Your task to perform on an android device: turn pop-ups on in chrome Image 0: 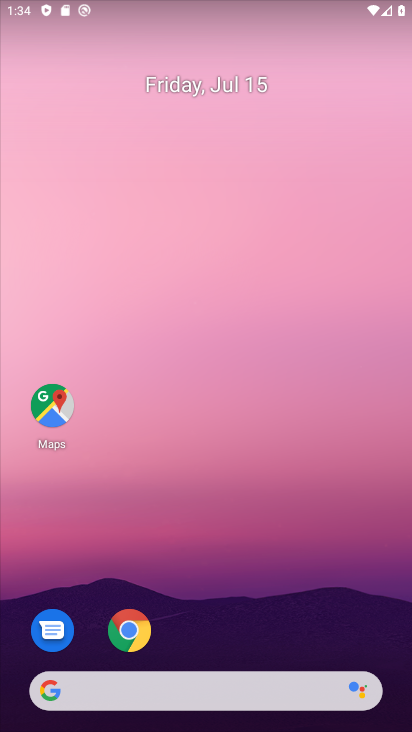
Step 0: click (126, 631)
Your task to perform on an android device: turn pop-ups on in chrome Image 1: 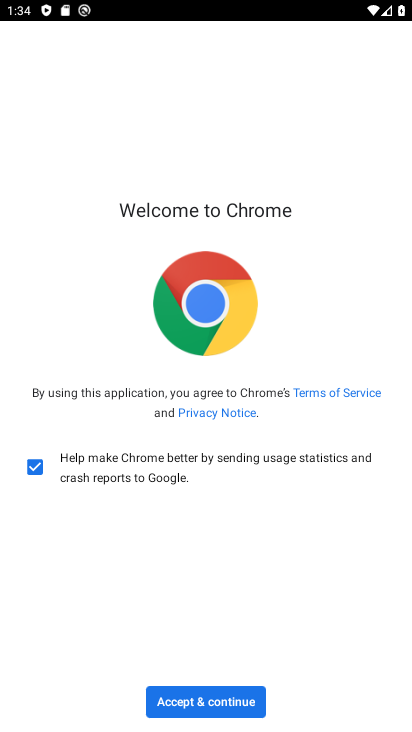
Step 1: click (199, 702)
Your task to perform on an android device: turn pop-ups on in chrome Image 2: 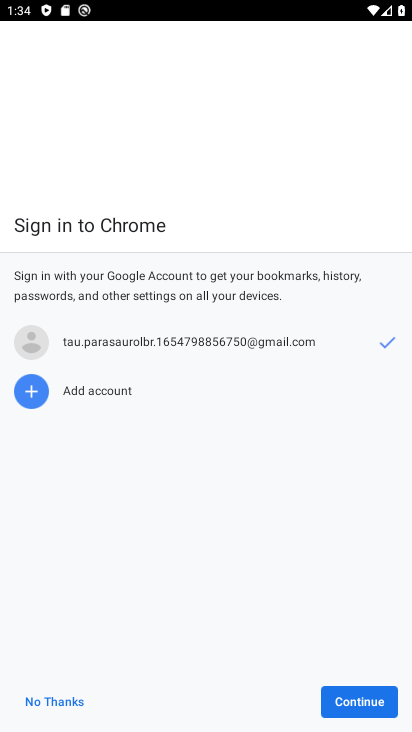
Step 2: click (331, 692)
Your task to perform on an android device: turn pop-ups on in chrome Image 3: 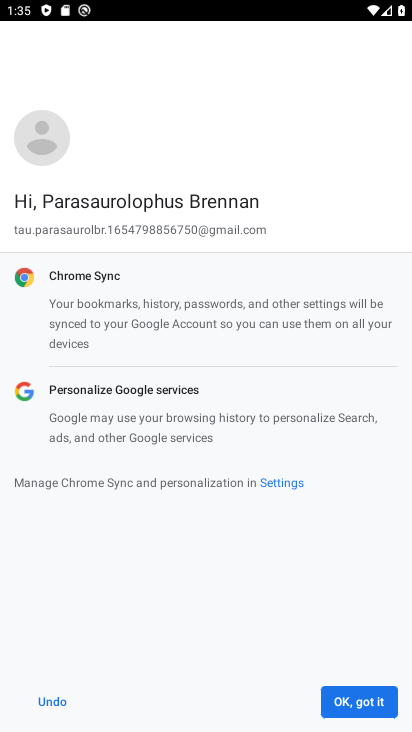
Step 3: click (367, 710)
Your task to perform on an android device: turn pop-ups on in chrome Image 4: 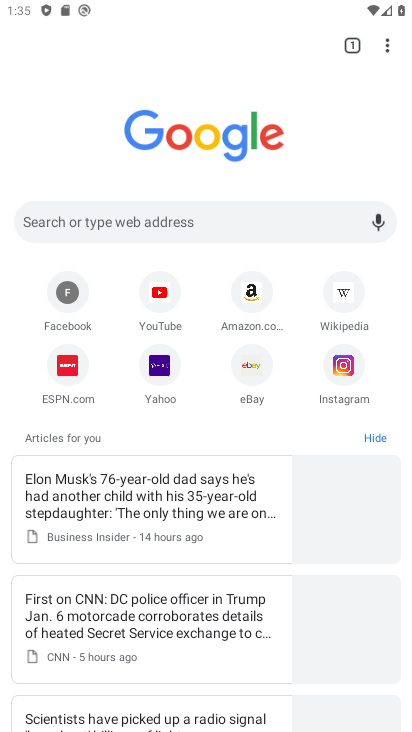
Step 4: click (383, 46)
Your task to perform on an android device: turn pop-ups on in chrome Image 5: 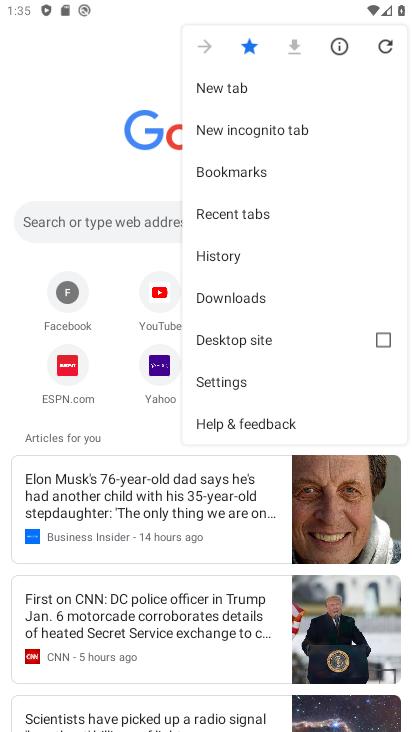
Step 5: click (229, 387)
Your task to perform on an android device: turn pop-ups on in chrome Image 6: 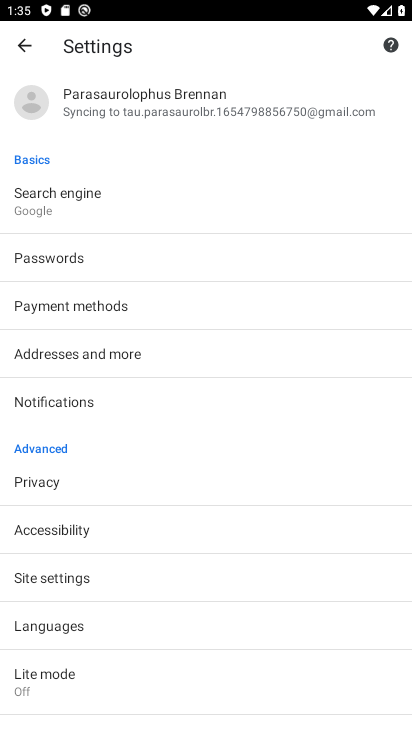
Step 6: click (65, 578)
Your task to perform on an android device: turn pop-ups on in chrome Image 7: 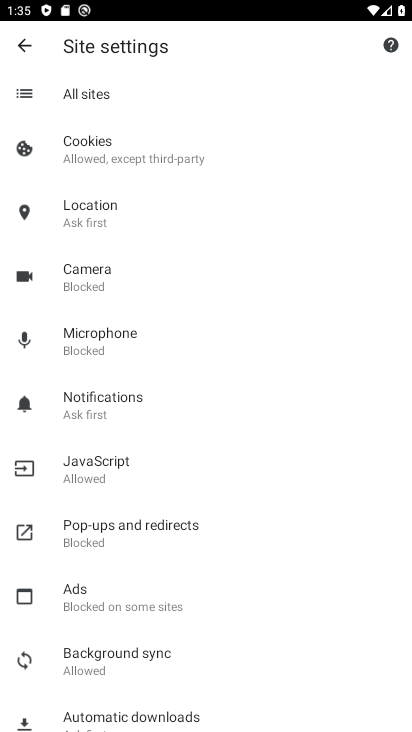
Step 7: click (100, 519)
Your task to perform on an android device: turn pop-ups on in chrome Image 8: 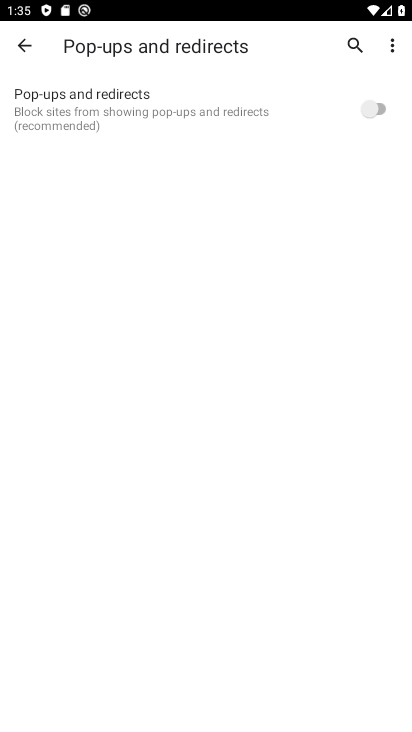
Step 8: click (360, 108)
Your task to perform on an android device: turn pop-ups on in chrome Image 9: 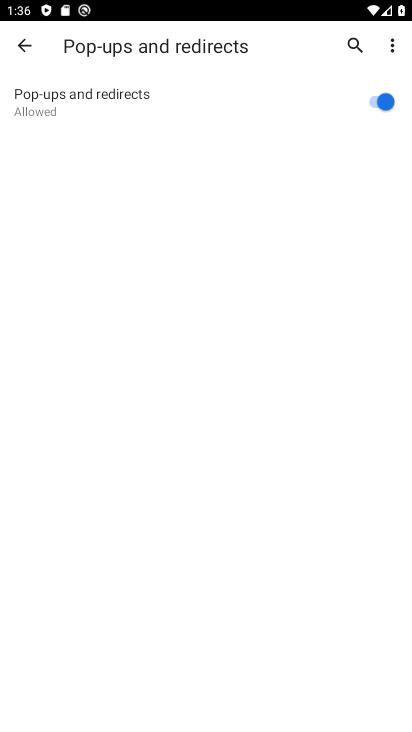
Step 9: task complete